Your task to perform on an android device: What's the weather? Image 0: 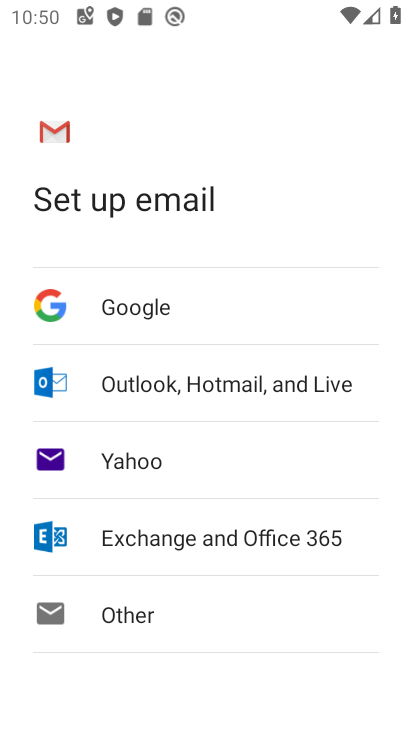
Step 0: press back button
Your task to perform on an android device: What's the weather? Image 1: 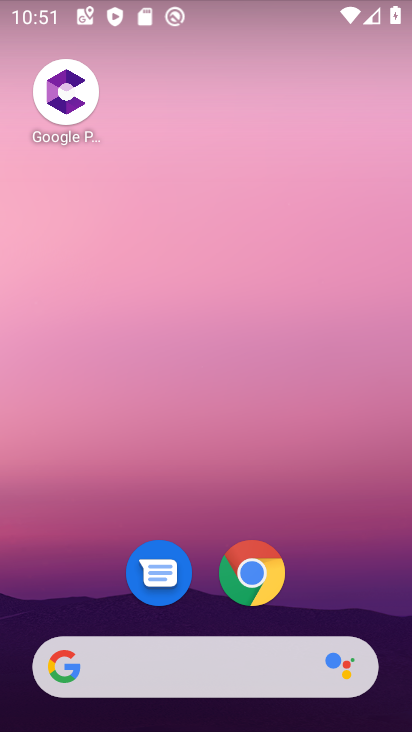
Step 1: click (177, 661)
Your task to perform on an android device: What's the weather? Image 2: 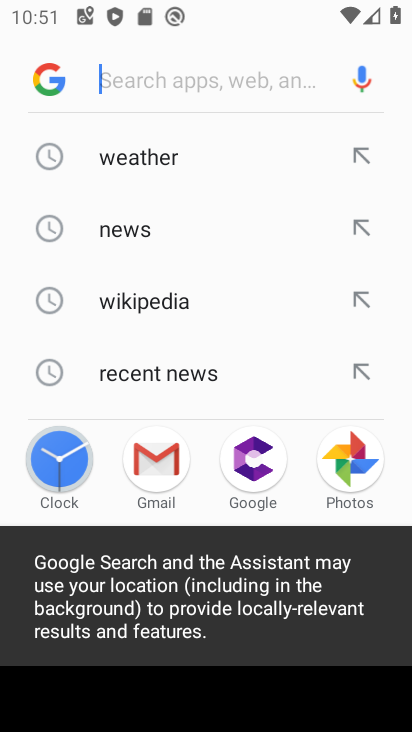
Step 2: click (136, 170)
Your task to perform on an android device: What's the weather? Image 3: 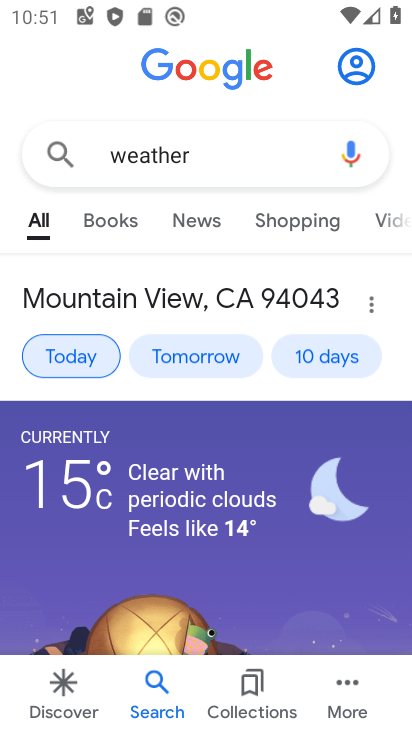
Step 3: task complete